Your task to perform on an android device: Open sound settings Image 0: 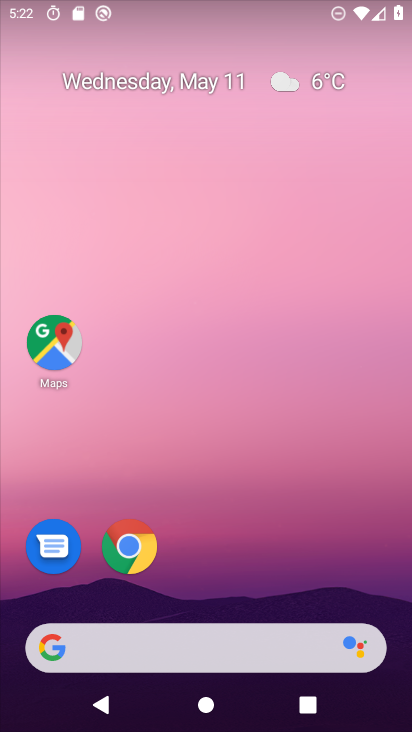
Step 0: press home button
Your task to perform on an android device: Open sound settings Image 1: 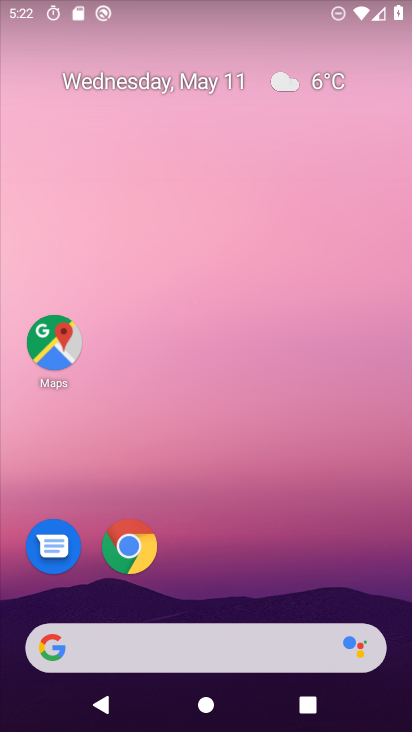
Step 1: drag from (173, 621) to (193, 264)
Your task to perform on an android device: Open sound settings Image 2: 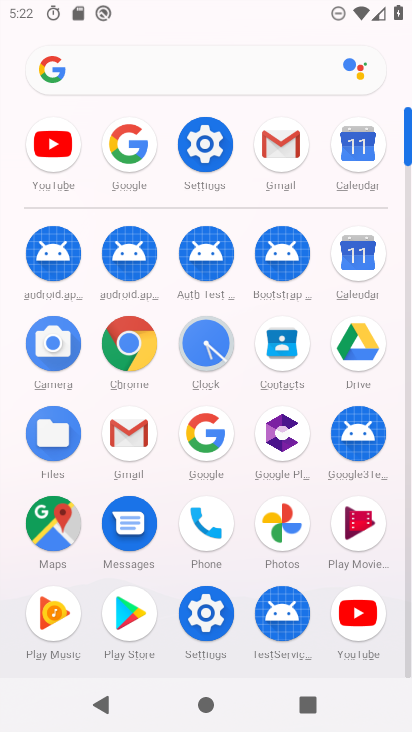
Step 2: click (218, 153)
Your task to perform on an android device: Open sound settings Image 3: 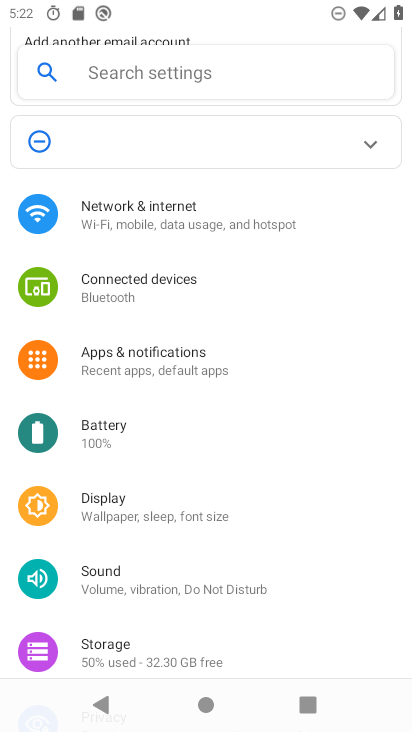
Step 3: drag from (118, 640) to (113, 369)
Your task to perform on an android device: Open sound settings Image 4: 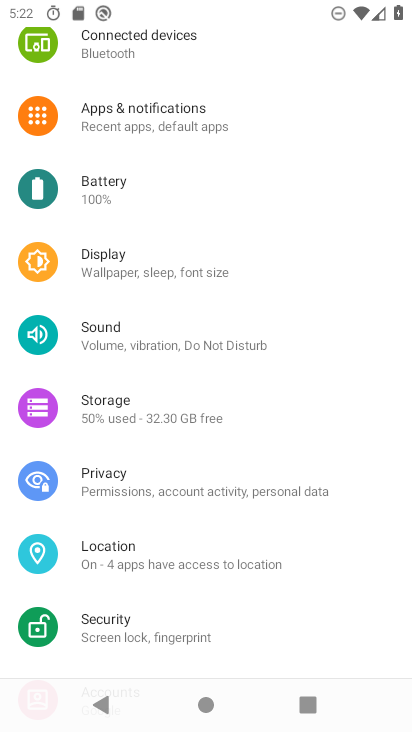
Step 4: click (118, 332)
Your task to perform on an android device: Open sound settings Image 5: 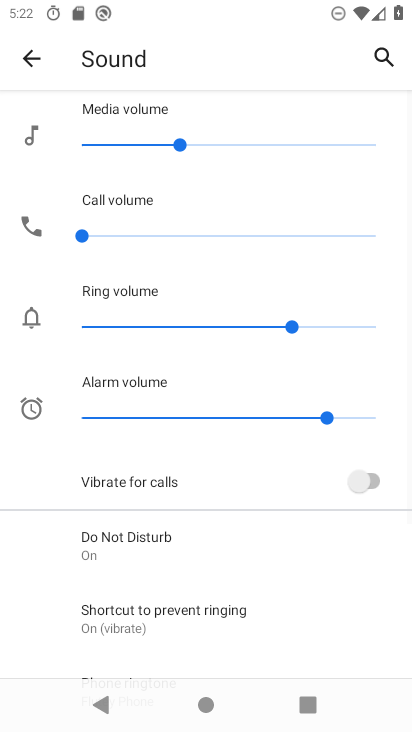
Step 5: drag from (189, 639) to (209, 233)
Your task to perform on an android device: Open sound settings Image 6: 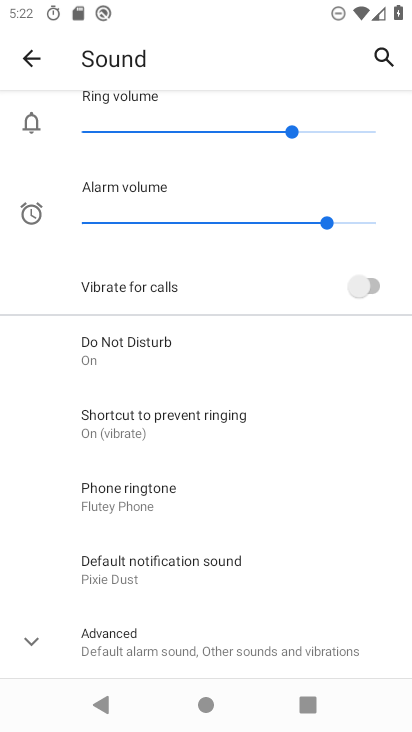
Step 6: click (151, 635)
Your task to perform on an android device: Open sound settings Image 7: 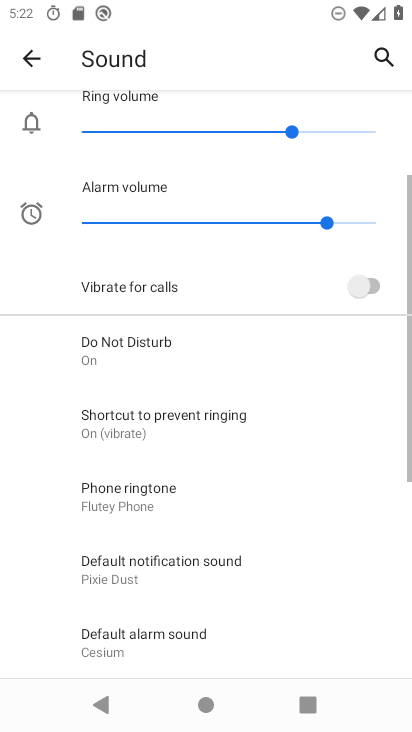
Step 7: task complete